Your task to perform on an android device: turn on priority inbox in the gmail app Image 0: 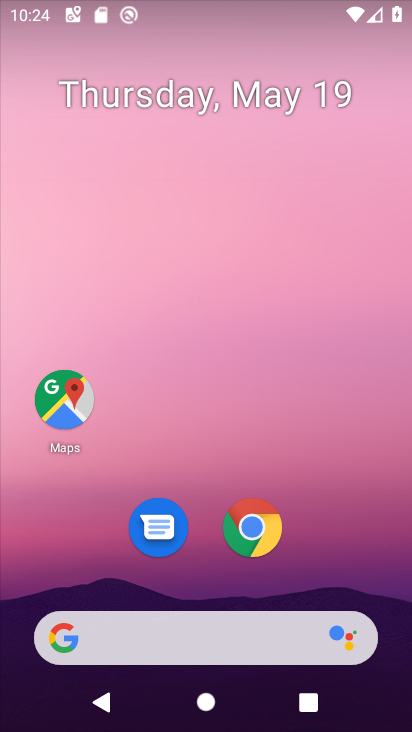
Step 0: drag from (368, 529) to (291, 185)
Your task to perform on an android device: turn on priority inbox in the gmail app Image 1: 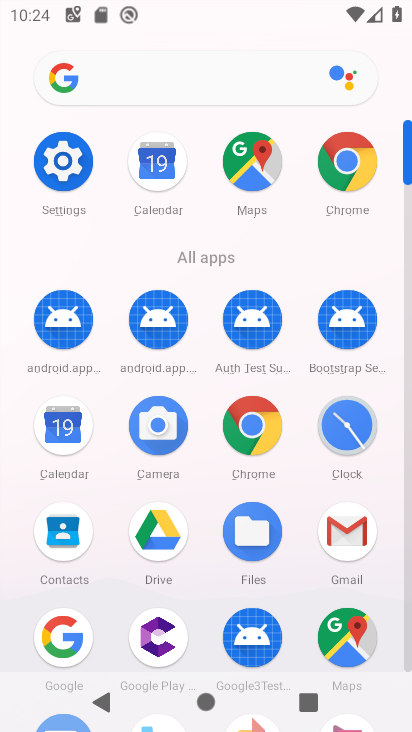
Step 1: click (351, 532)
Your task to perform on an android device: turn on priority inbox in the gmail app Image 2: 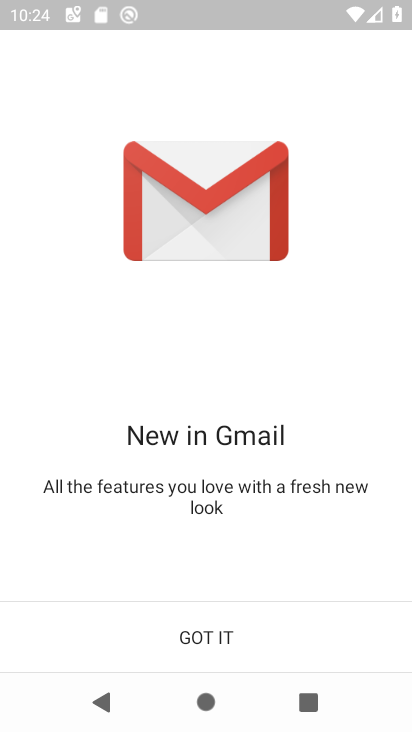
Step 2: click (202, 638)
Your task to perform on an android device: turn on priority inbox in the gmail app Image 3: 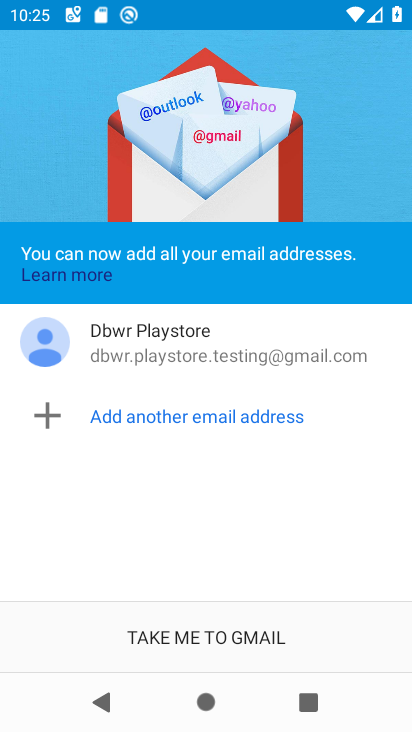
Step 3: click (202, 638)
Your task to perform on an android device: turn on priority inbox in the gmail app Image 4: 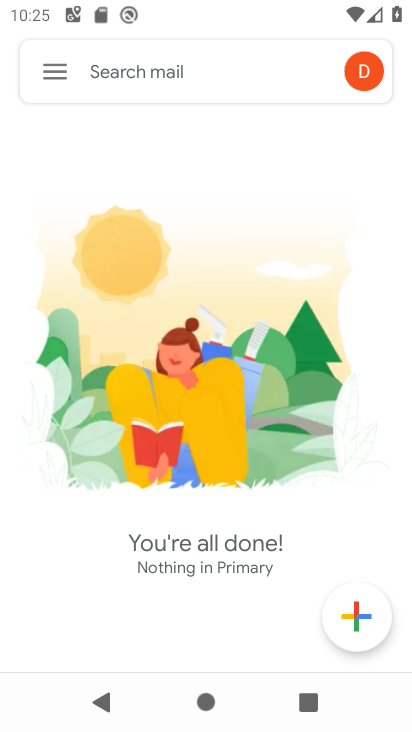
Step 4: click (55, 84)
Your task to perform on an android device: turn on priority inbox in the gmail app Image 5: 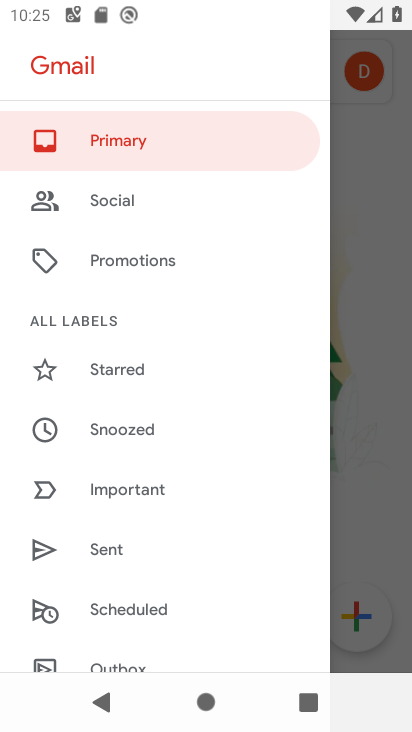
Step 5: drag from (198, 660) to (290, 152)
Your task to perform on an android device: turn on priority inbox in the gmail app Image 6: 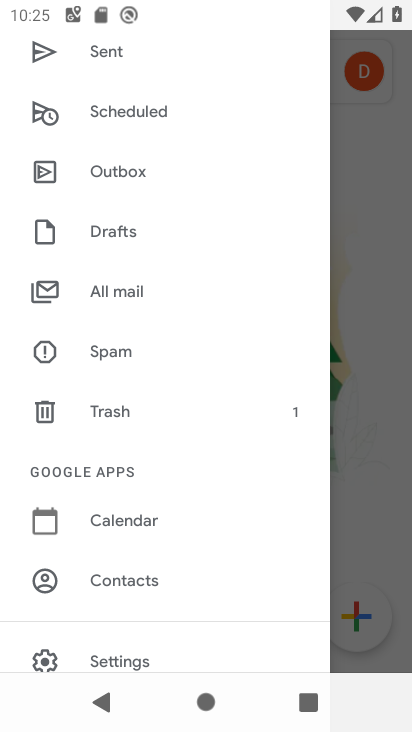
Step 6: click (204, 625)
Your task to perform on an android device: turn on priority inbox in the gmail app Image 7: 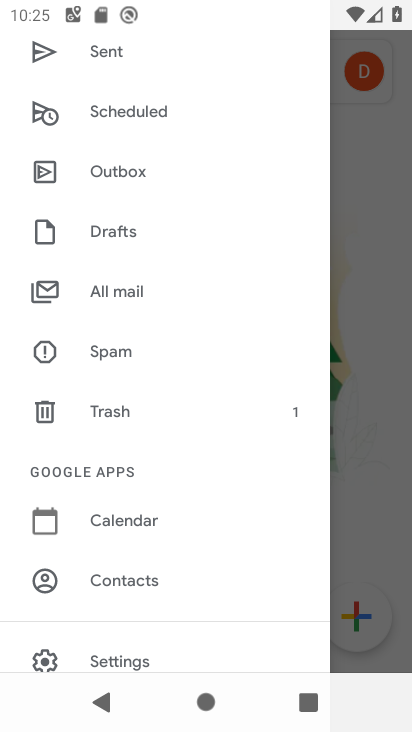
Step 7: click (182, 661)
Your task to perform on an android device: turn on priority inbox in the gmail app Image 8: 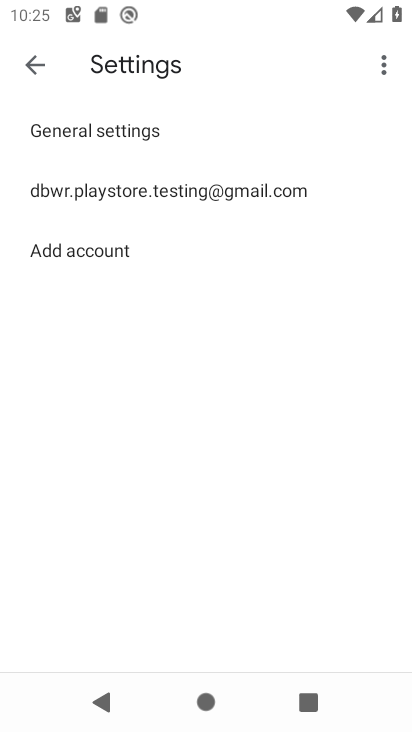
Step 8: click (216, 192)
Your task to perform on an android device: turn on priority inbox in the gmail app Image 9: 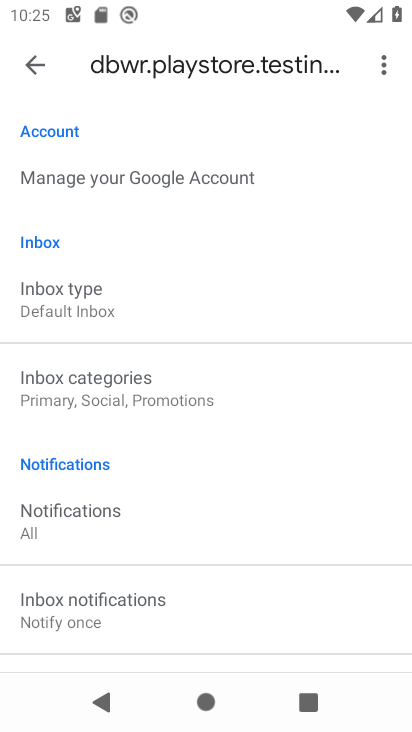
Step 9: click (203, 297)
Your task to perform on an android device: turn on priority inbox in the gmail app Image 10: 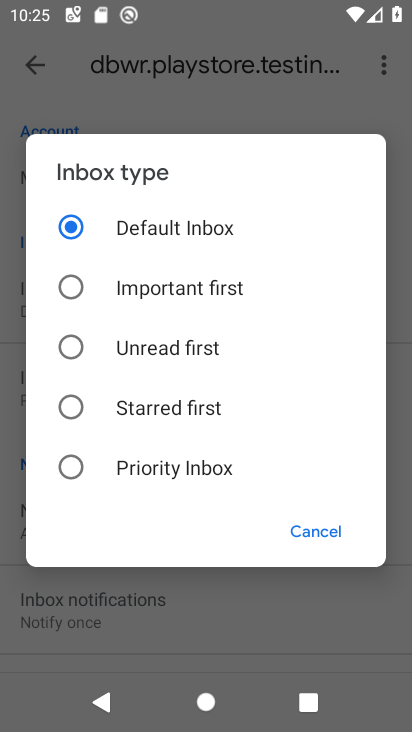
Step 10: click (191, 470)
Your task to perform on an android device: turn on priority inbox in the gmail app Image 11: 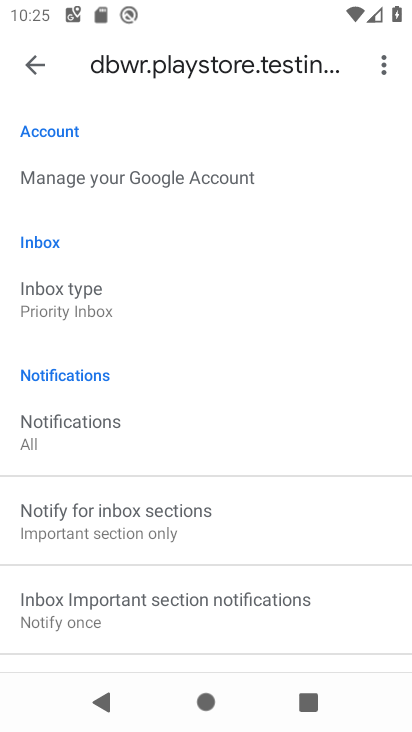
Step 11: task complete